Your task to perform on an android device: Go to battery settings Image 0: 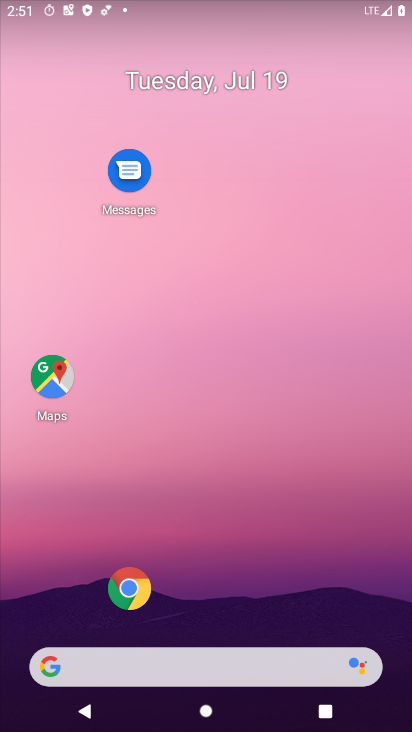
Step 0: drag from (33, 711) to (120, 107)
Your task to perform on an android device: Go to battery settings Image 1: 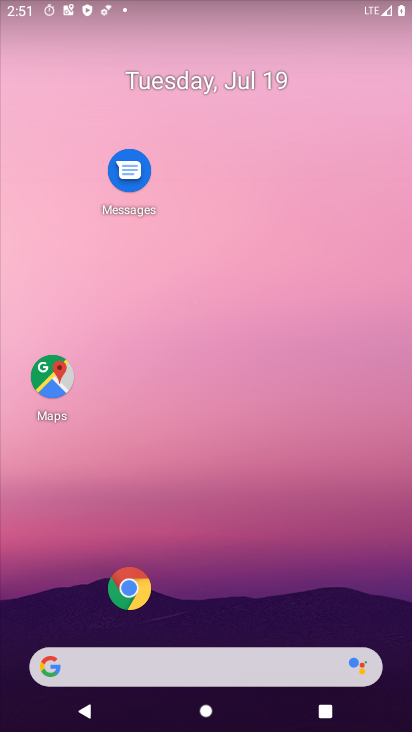
Step 1: drag from (32, 699) to (130, 29)
Your task to perform on an android device: Go to battery settings Image 2: 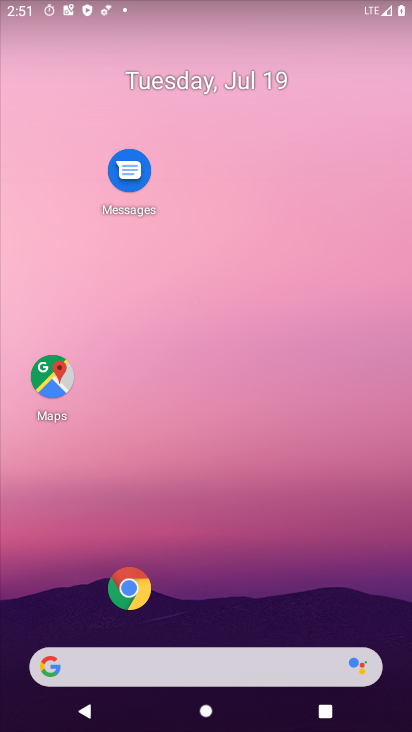
Step 2: drag from (26, 704) to (103, 50)
Your task to perform on an android device: Go to battery settings Image 3: 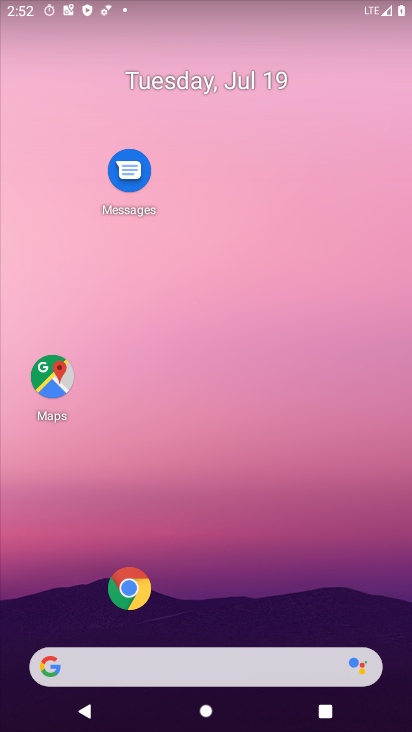
Step 3: drag from (16, 699) to (167, 40)
Your task to perform on an android device: Go to battery settings Image 4: 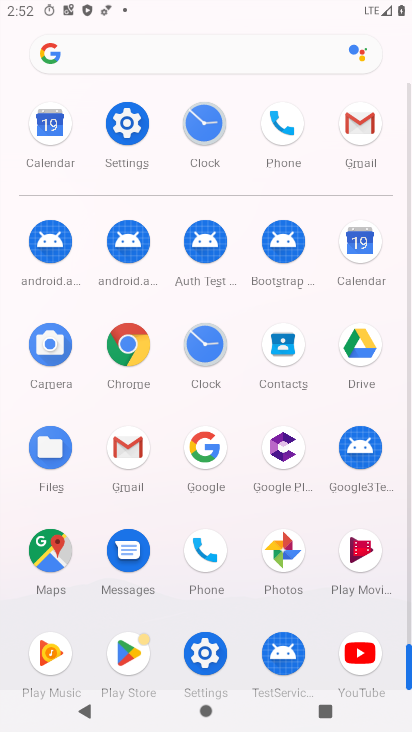
Step 4: click (203, 656)
Your task to perform on an android device: Go to battery settings Image 5: 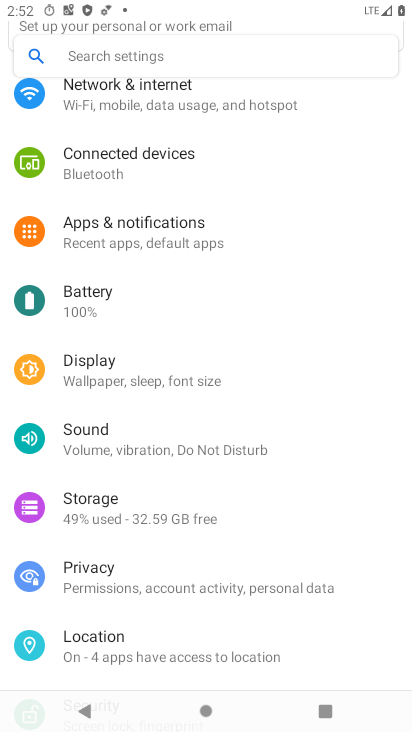
Step 5: click (0, 245)
Your task to perform on an android device: Go to battery settings Image 6: 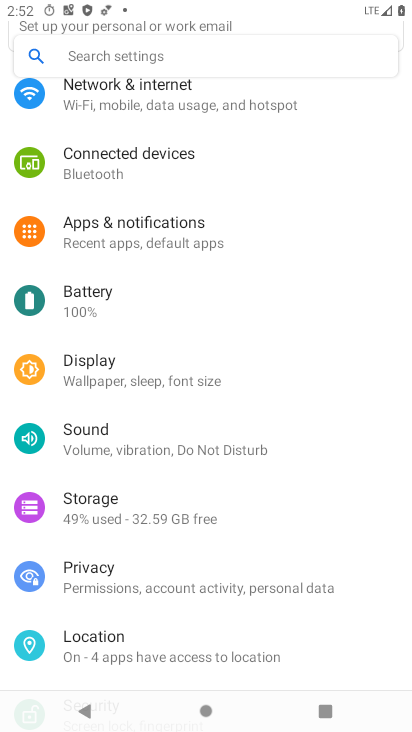
Step 6: click (111, 291)
Your task to perform on an android device: Go to battery settings Image 7: 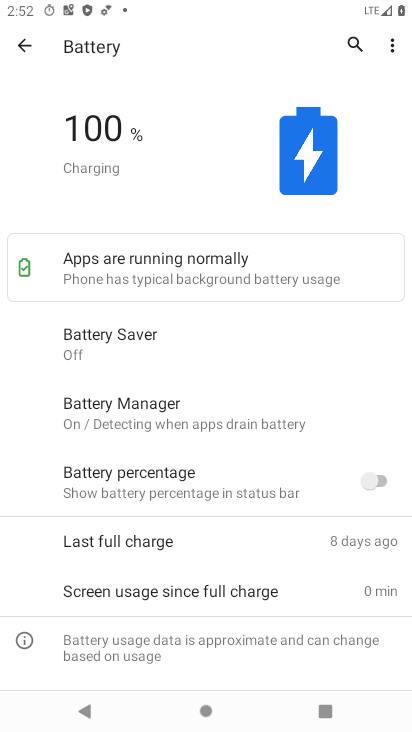
Step 7: task complete